Your task to perform on an android device: Open Chrome and go to the settings page Image 0: 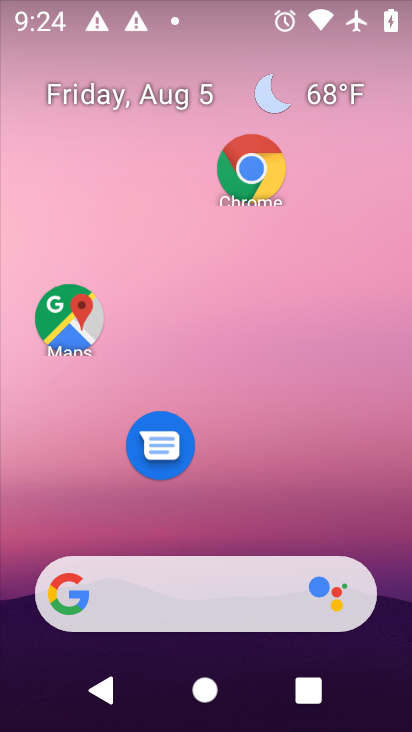
Step 0: click (247, 187)
Your task to perform on an android device: Open Chrome and go to the settings page Image 1: 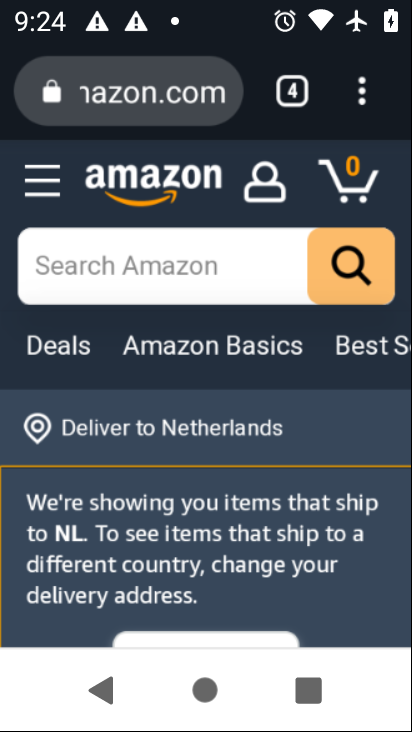
Step 1: click (373, 101)
Your task to perform on an android device: Open Chrome and go to the settings page Image 2: 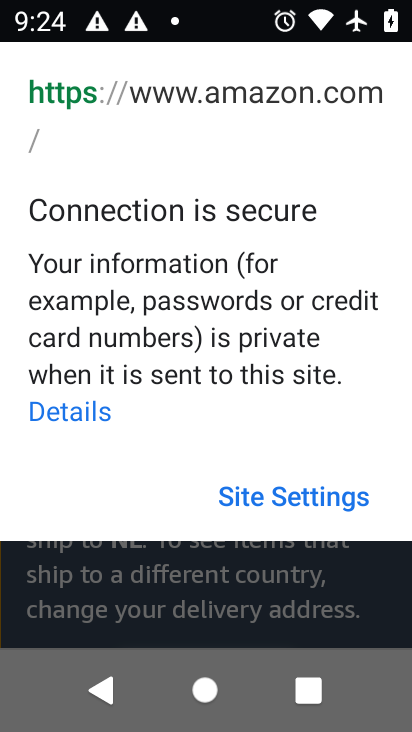
Step 2: click (248, 563)
Your task to perform on an android device: Open Chrome and go to the settings page Image 3: 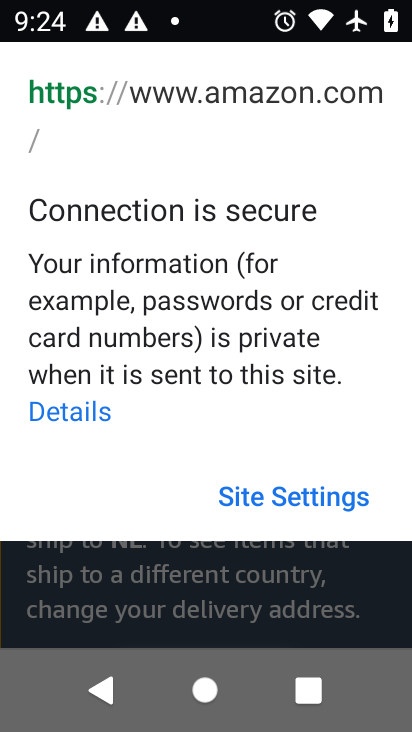
Step 3: press back button
Your task to perform on an android device: Open Chrome and go to the settings page Image 4: 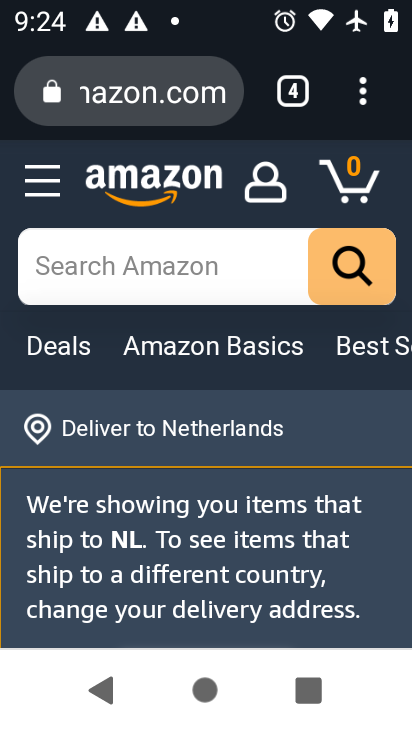
Step 4: click (367, 104)
Your task to perform on an android device: Open Chrome and go to the settings page Image 5: 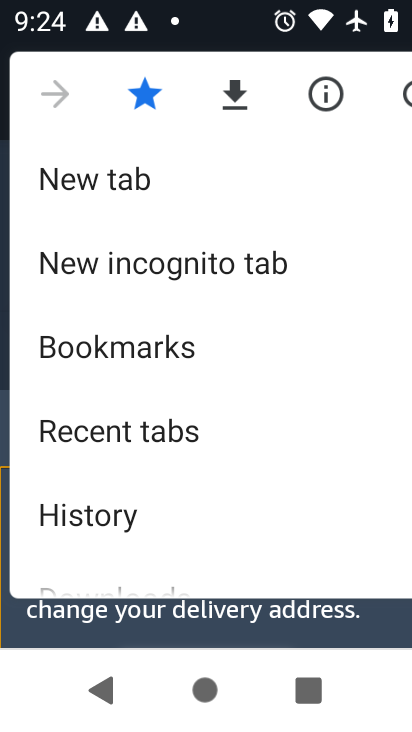
Step 5: drag from (159, 524) to (165, 194)
Your task to perform on an android device: Open Chrome and go to the settings page Image 6: 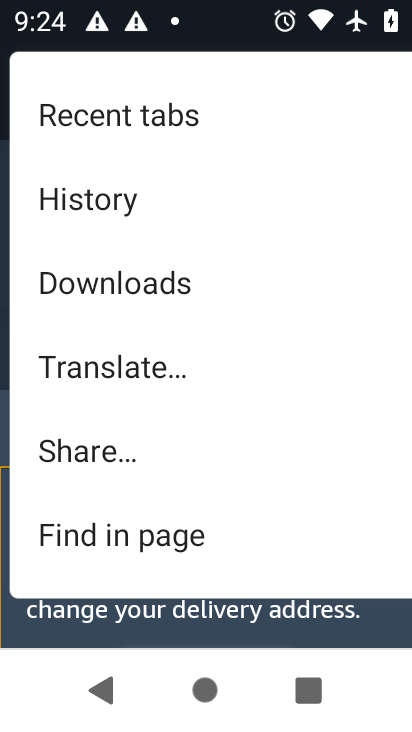
Step 6: drag from (164, 530) to (183, 213)
Your task to perform on an android device: Open Chrome and go to the settings page Image 7: 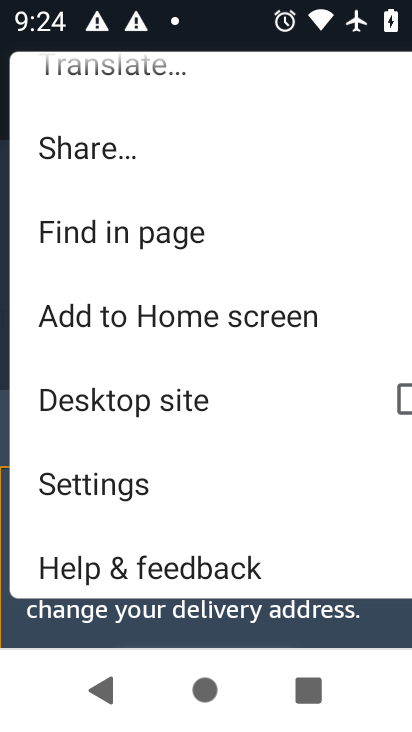
Step 7: click (126, 484)
Your task to perform on an android device: Open Chrome and go to the settings page Image 8: 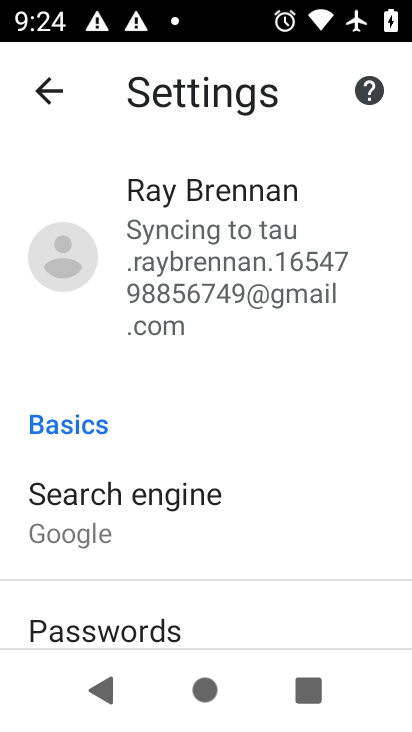
Step 8: task complete